Your task to perform on an android device: Open Google Chrome and click the shortcut for Amazon.com Image 0: 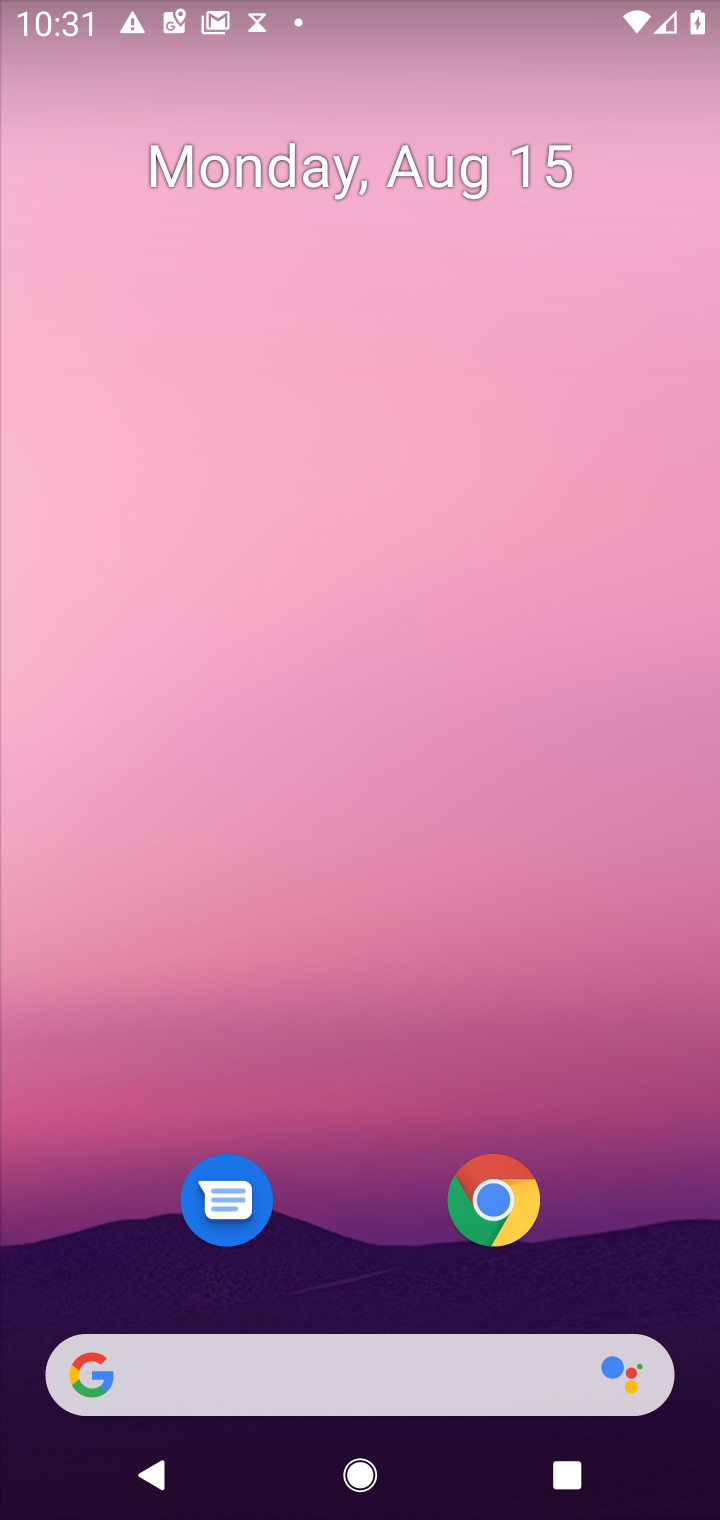
Step 0: click (511, 1206)
Your task to perform on an android device: Open Google Chrome and click the shortcut for Amazon.com Image 1: 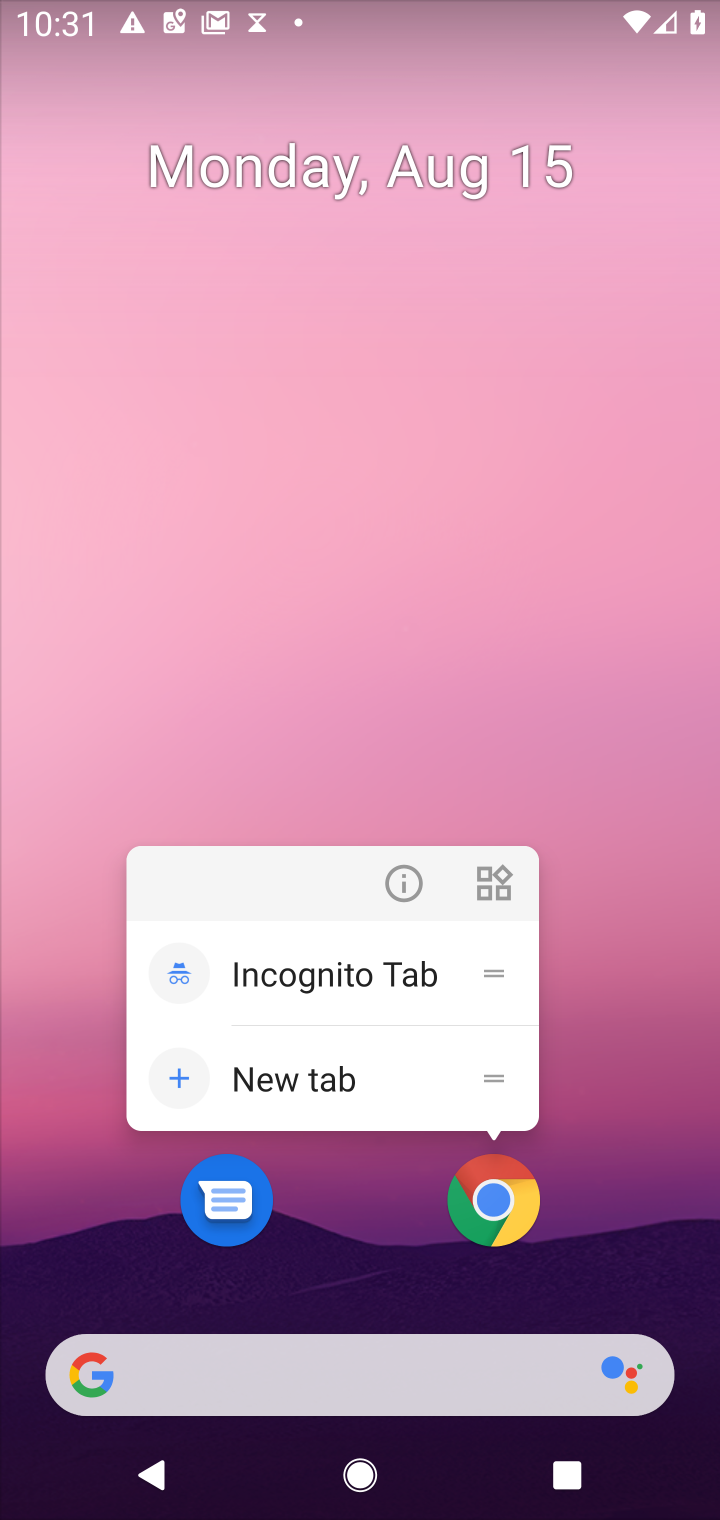
Step 1: click (511, 1206)
Your task to perform on an android device: Open Google Chrome and click the shortcut for Amazon.com Image 2: 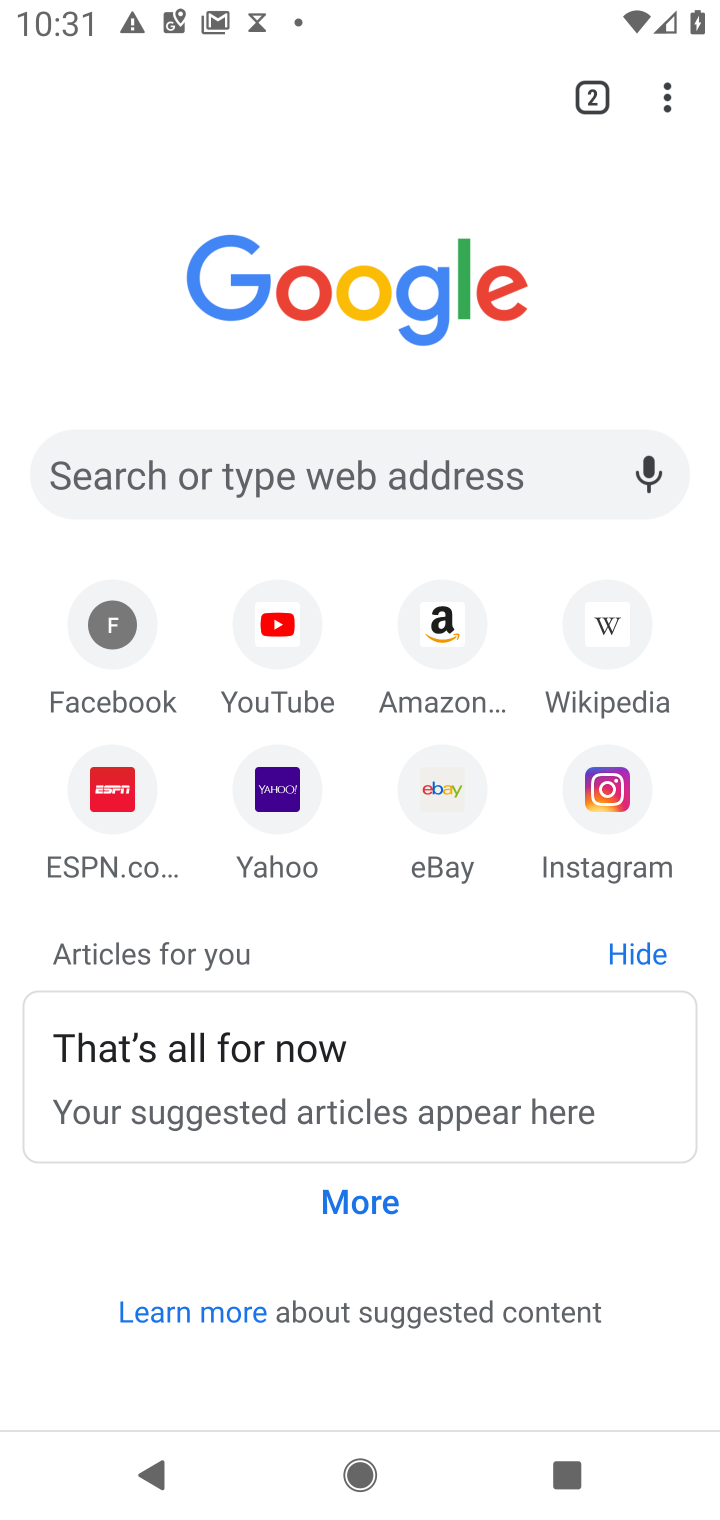
Step 2: click (442, 630)
Your task to perform on an android device: Open Google Chrome and click the shortcut for Amazon.com Image 3: 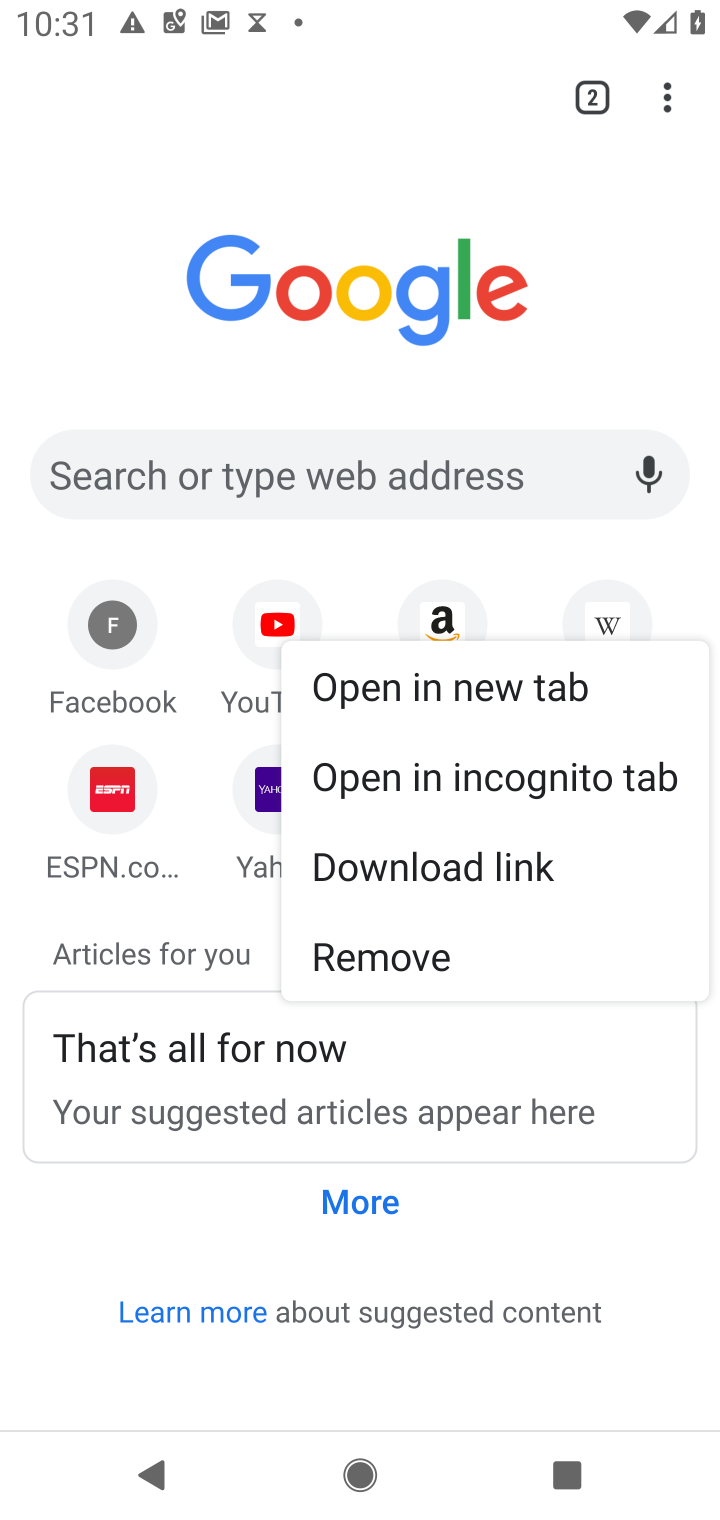
Step 3: click (442, 630)
Your task to perform on an android device: Open Google Chrome and click the shortcut for Amazon.com Image 4: 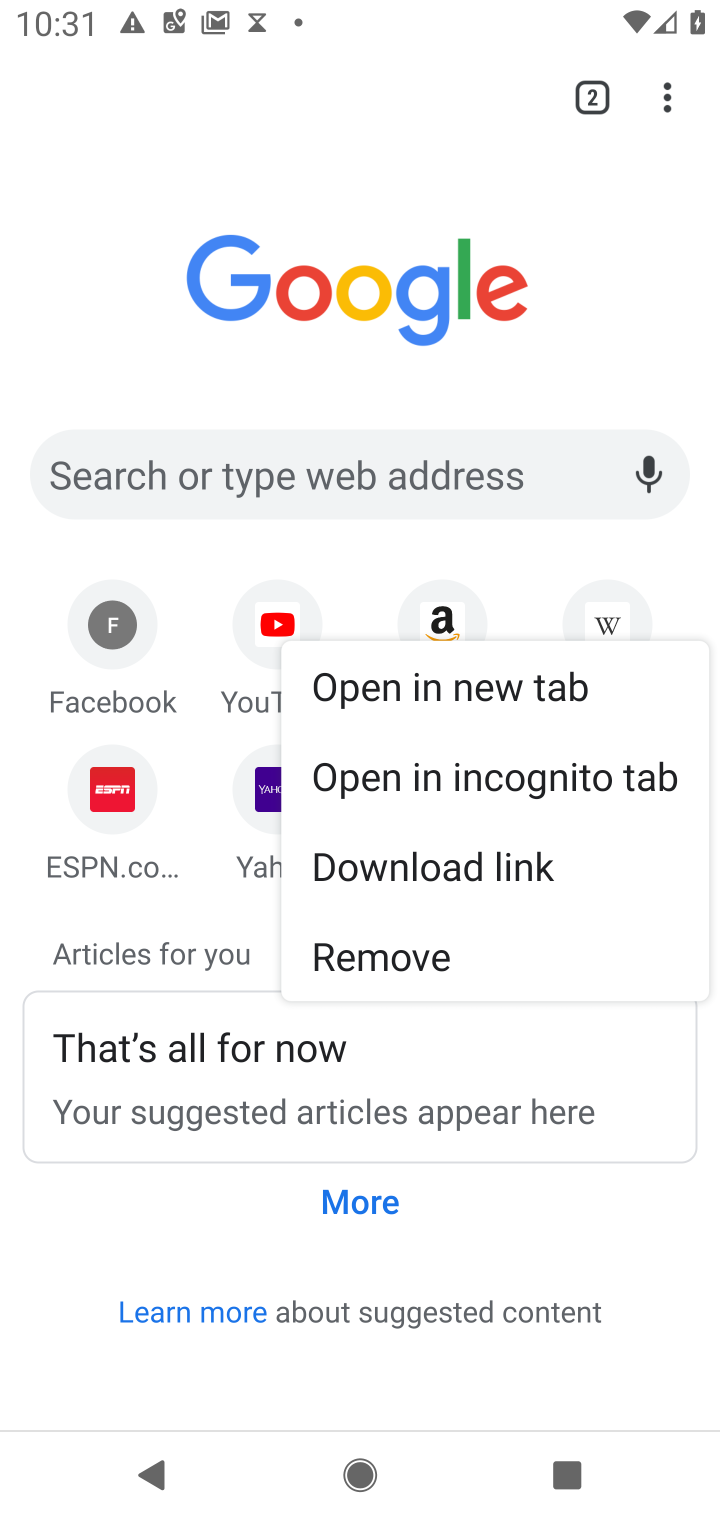
Step 4: click (440, 610)
Your task to perform on an android device: Open Google Chrome and click the shortcut for Amazon.com Image 5: 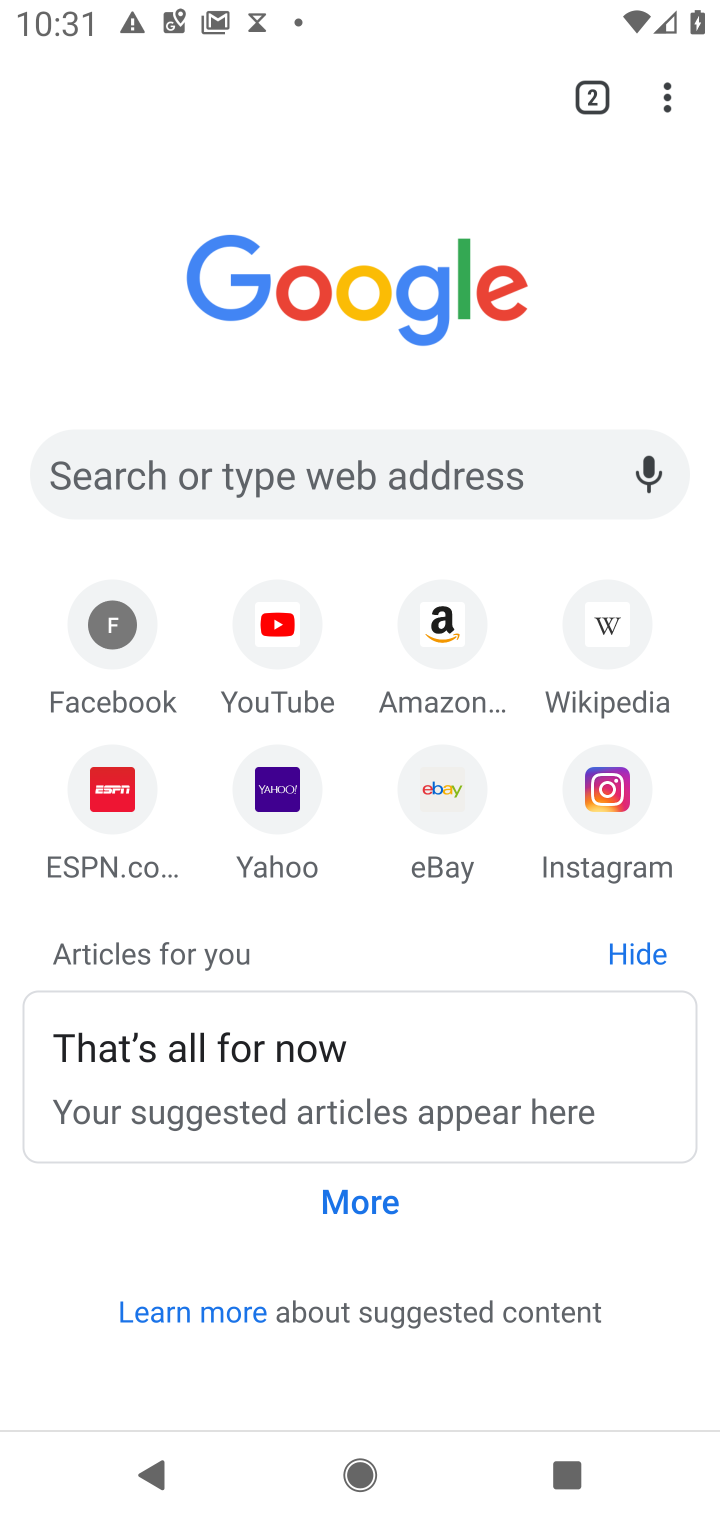
Step 5: click (446, 623)
Your task to perform on an android device: Open Google Chrome and click the shortcut for Amazon.com Image 6: 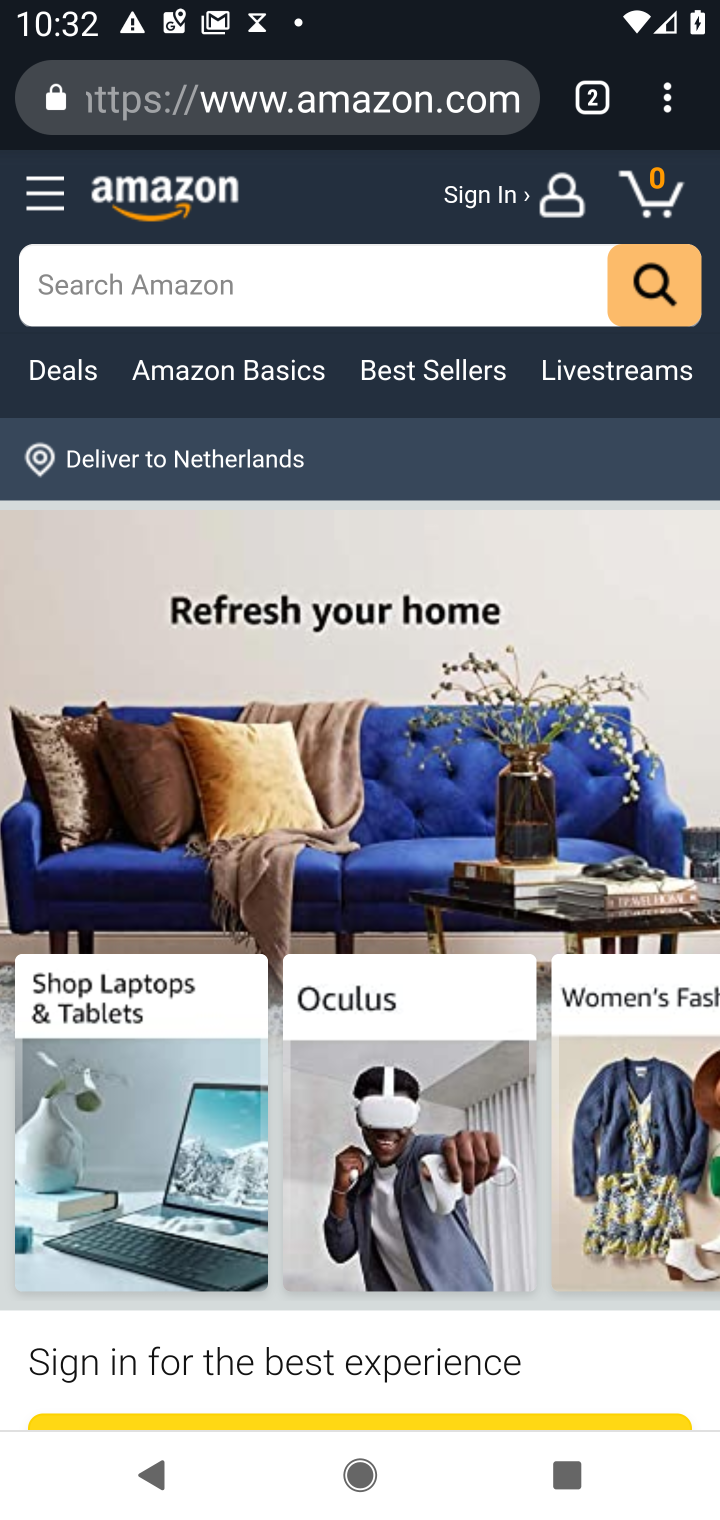
Step 6: task complete